Your task to perform on an android device: Go to wifi settings Image 0: 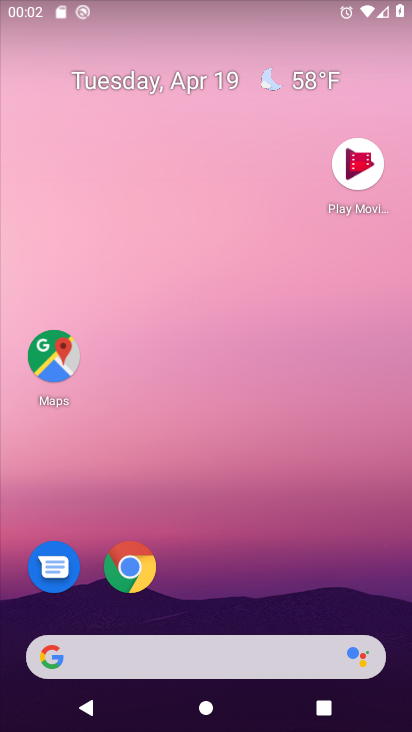
Step 0: drag from (198, 531) to (244, 102)
Your task to perform on an android device: Go to wifi settings Image 1: 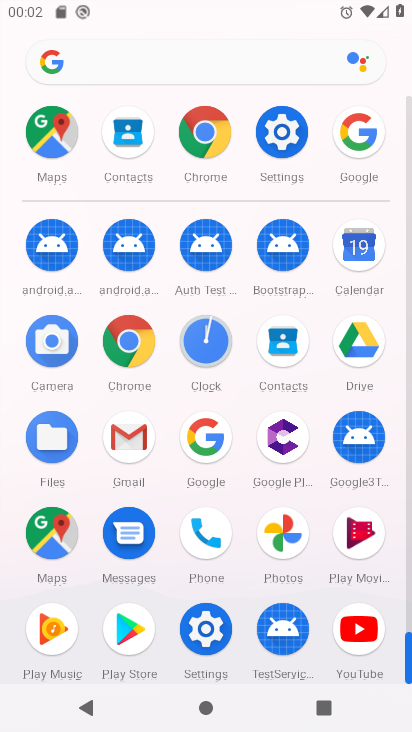
Step 1: click (204, 626)
Your task to perform on an android device: Go to wifi settings Image 2: 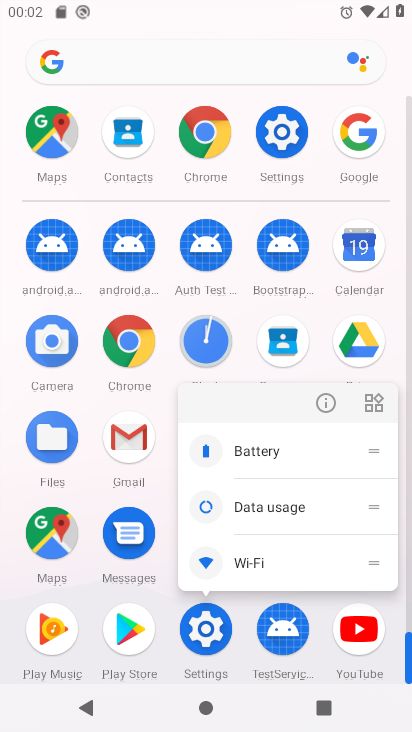
Step 2: click (317, 405)
Your task to perform on an android device: Go to wifi settings Image 3: 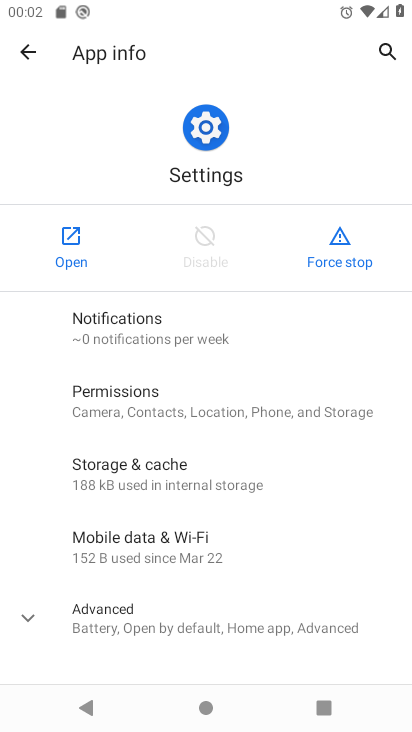
Step 3: click (75, 245)
Your task to perform on an android device: Go to wifi settings Image 4: 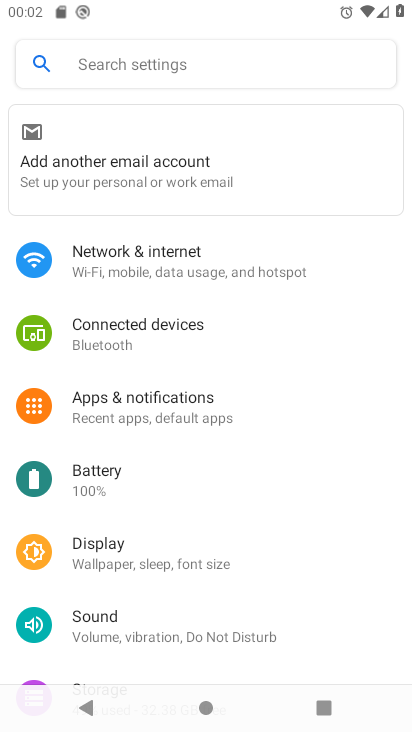
Step 4: click (154, 275)
Your task to perform on an android device: Go to wifi settings Image 5: 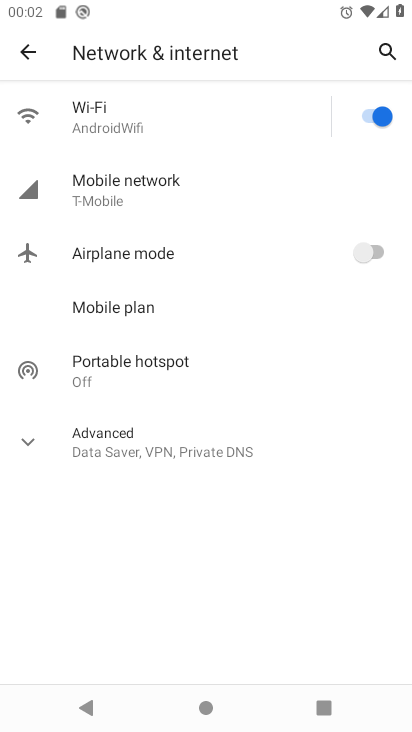
Step 5: click (216, 120)
Your task to perform on an android device: Go to wifi settings Image 6: 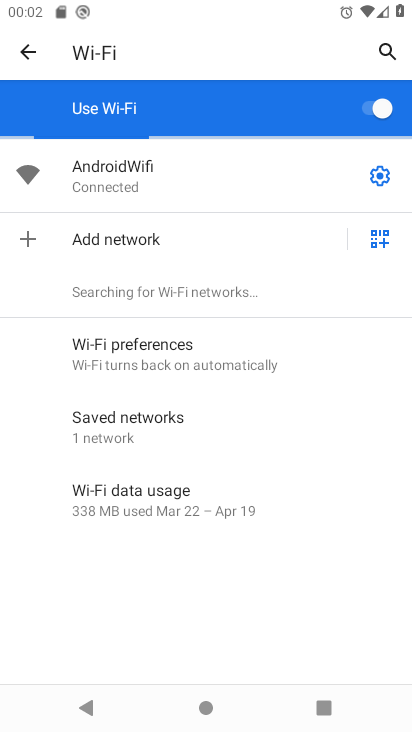
Step 6: click (372, 188)
Your task to perform on an android device: Go to wifi settings Image 7: 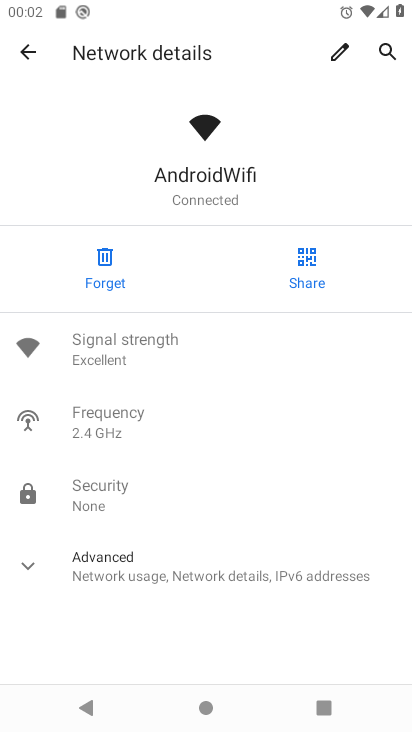
Step 7: task complete